Your task to perform on an android device: Open CNN.com Image 0: 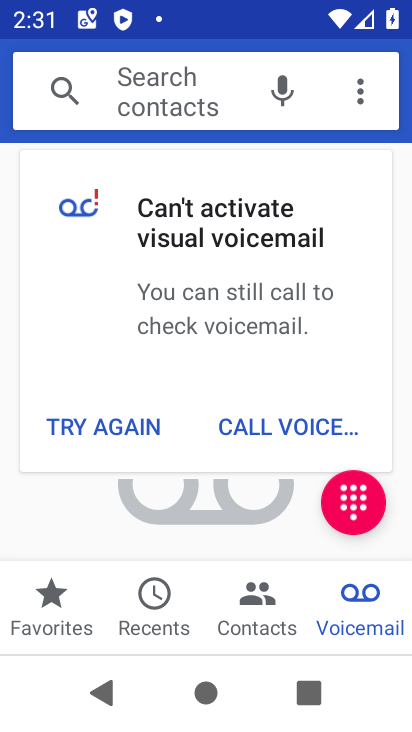
Step 0: press home button
Your task to perform on an android device: Open CNN.com Image 1: 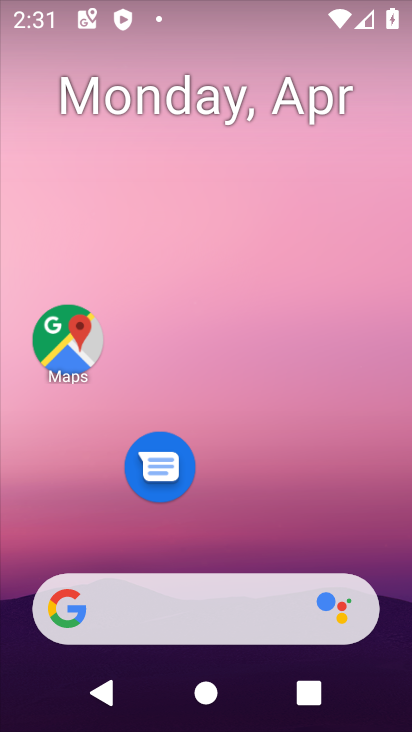
Step 1: drag from (265, 512) to (335, 125)
Your task to perform on an android device: Open CNN.com Image 2: 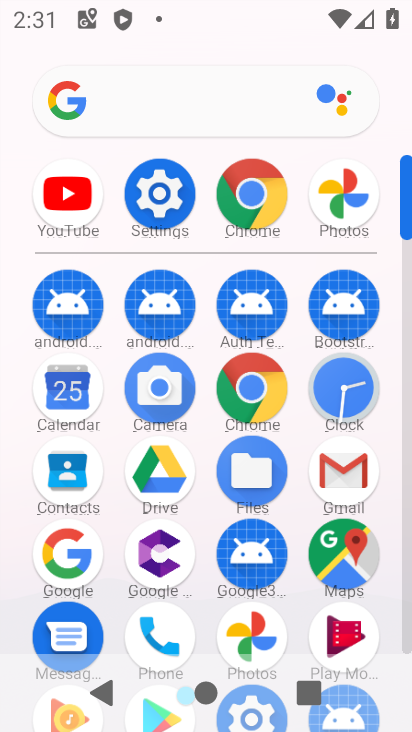
Step 2: click (243, 189)
Your task to perform on an android device: Open CNN.com Image 3: 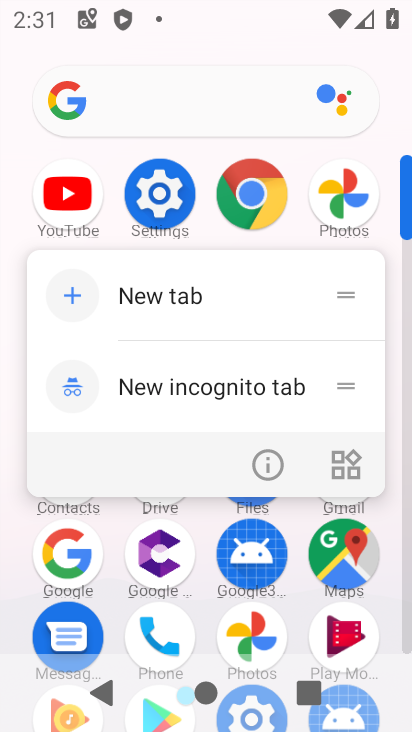
Step 3: click (245, 190)
Your task to perform on an android device: Open CNN.com Image 4: 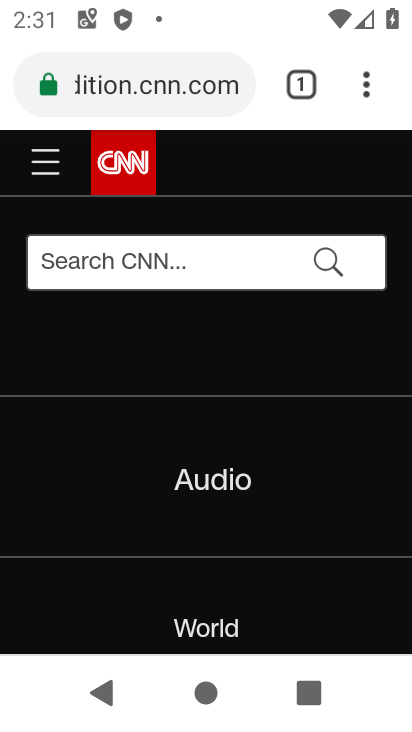
Step 4: task complete